Your task to perform on an android device: Go to Amazon Image 0: 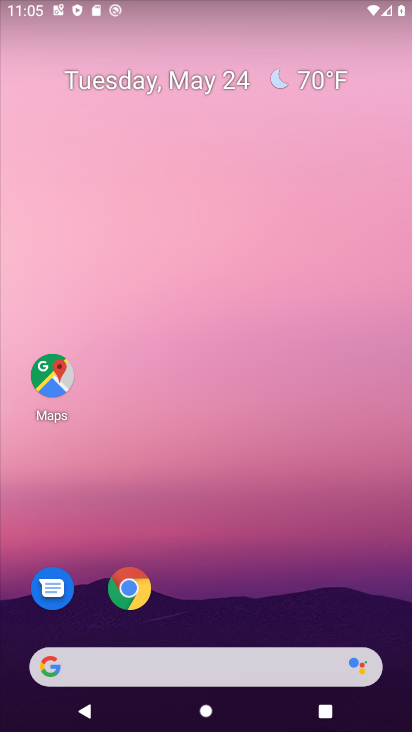
Step 0: click (125, 584)
Your task to perform on an android device: Go to Amazon Image 1: 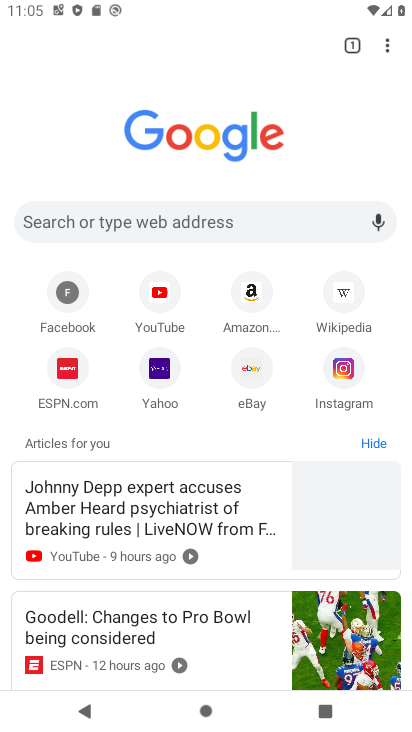
Step 1: click (251, 283)
Your task to perform on an android device: Go to Amazon Image 2: 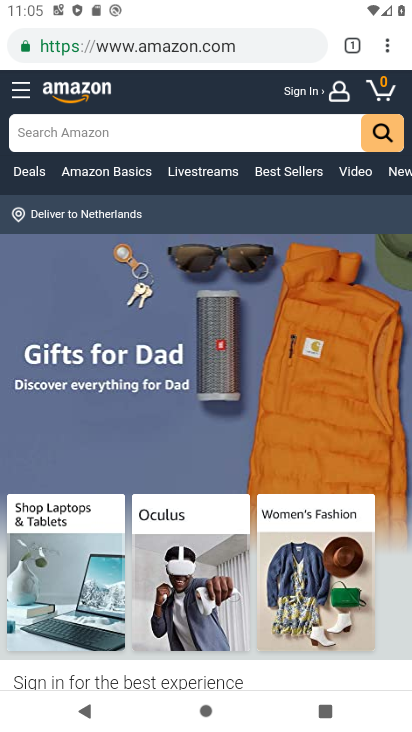
Step 2: task complete